Your task to perform on an android device: change the clock display to digital Image 0: 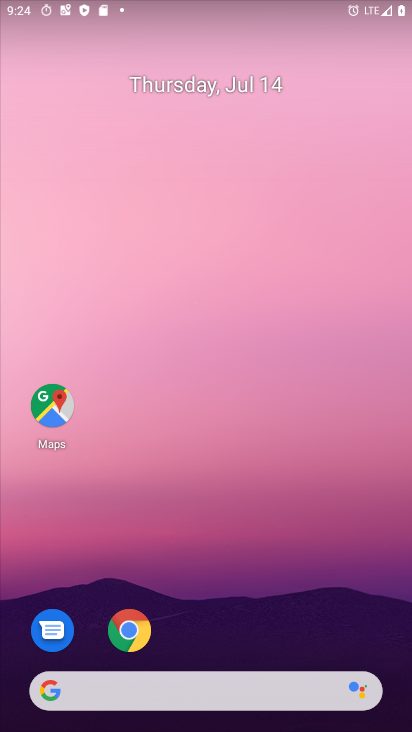
Step 0: drag from (218, 715) to (211, 180)
Your task to perform on an android device: change the clock display to digital Image 1: 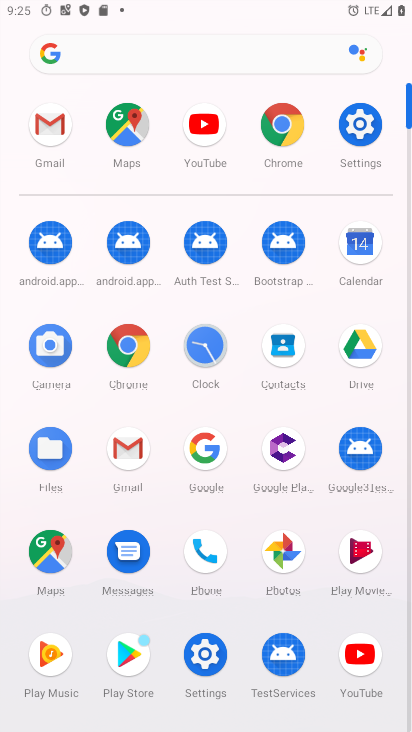
Step 1: click (209, 343)
Your task to perform on an android device: change the clock display to digital Image 2: 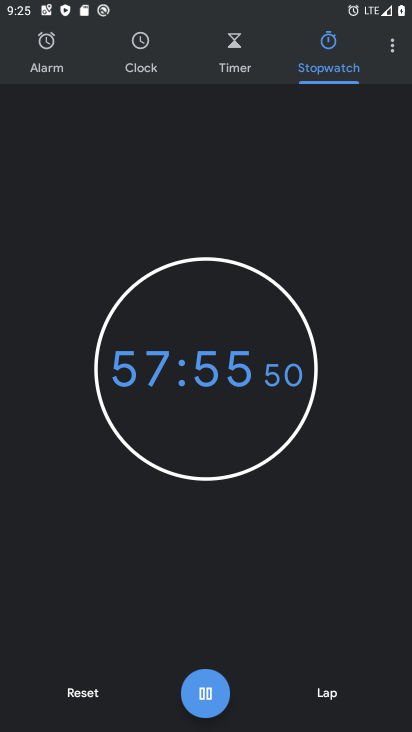
Step 2: click (390, 46)
Your task to perform on an android device: change the clock display to digital Image 3: 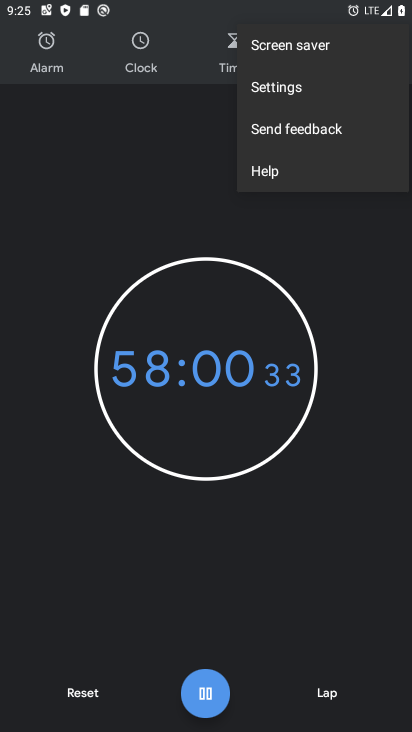
Step 3: click (285, 83)
Your task to perform on an android device: change the clock display to digital Image 4: 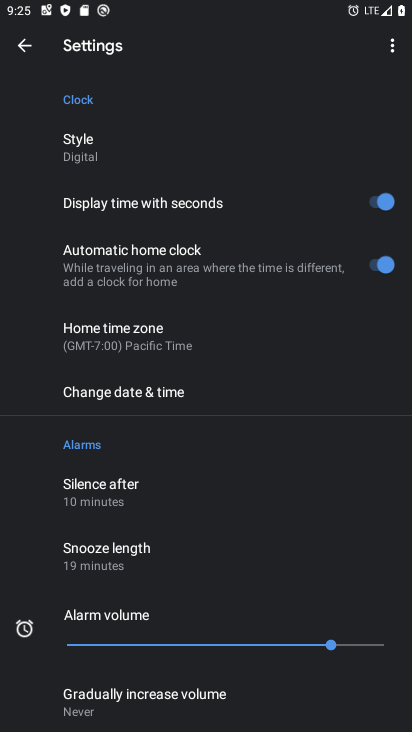
Step 4: task complete